Your task to perform on an android device: Open maps Image 0: 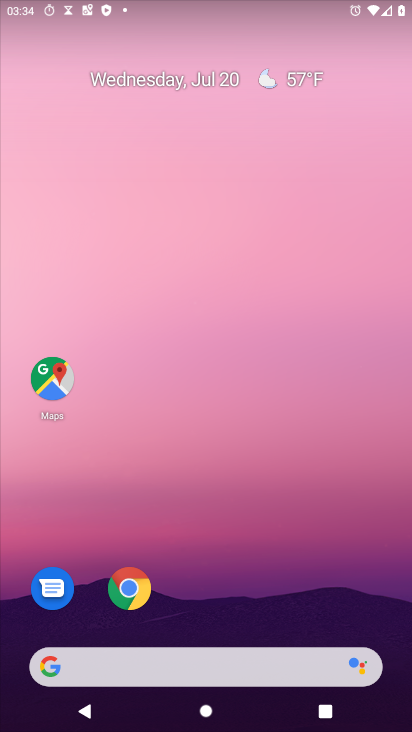
Step 0: drag from (286, 664) to (226, 71)
Your task to perform on an android device: Open maps Image 1: 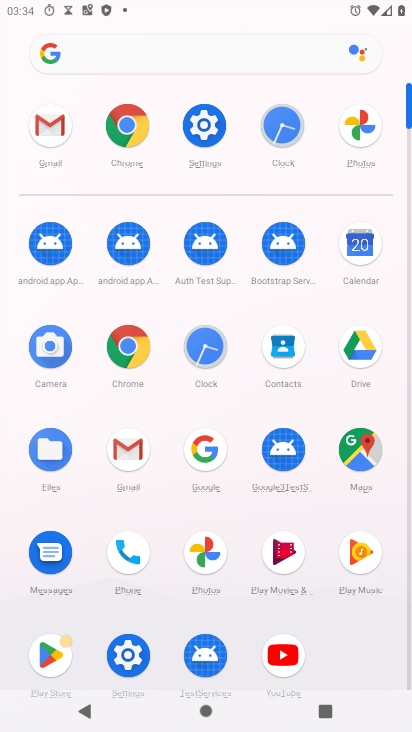
Step 1: click (363, 464)
Your task to perform on an android device: Open maps Image 2: 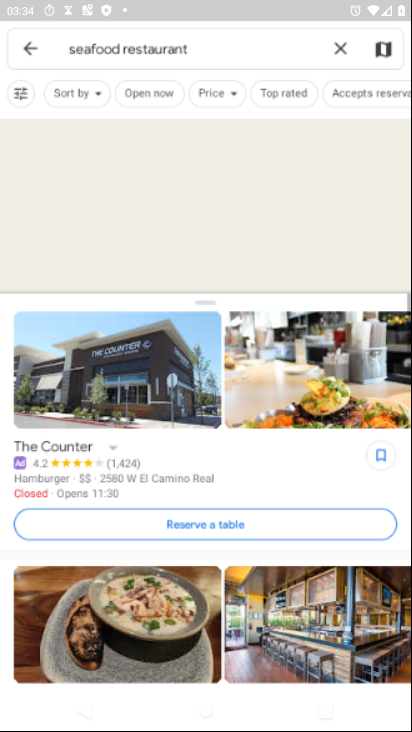
Step 2: task complete